Your task to perform on an android device: Open the phone app and click the voicemail tab. Image 0: 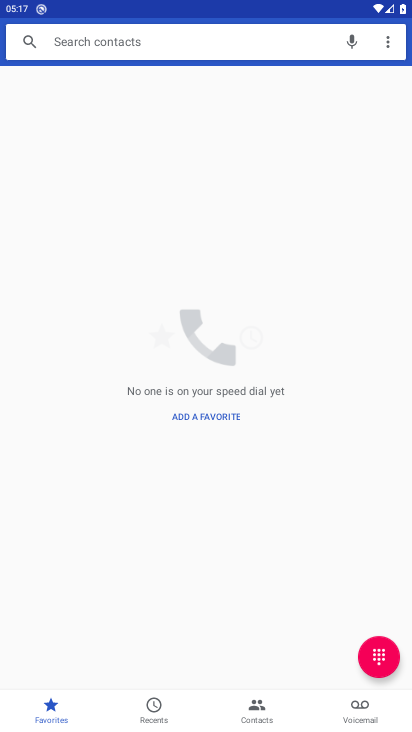
Step 0: press home button
Your task to perform on an android device: Open the phone app and click the voicemail tab. Image 1: 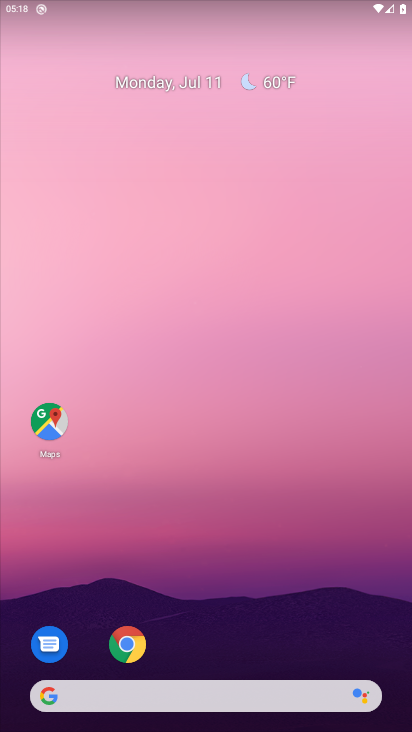
Step 1: drag from (160, 681) to (195, 423)
Your task to perform on an android device: Open the phone app and click the voicemail tab. Image 2: 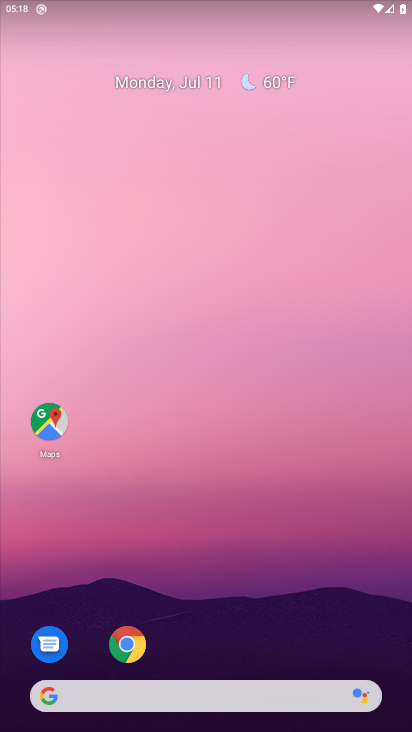
Step 2: drag from (200, 695) to (206, 248)
Your task to perform on an android device: Open the phone app and click the voicemail tab. Image 3: 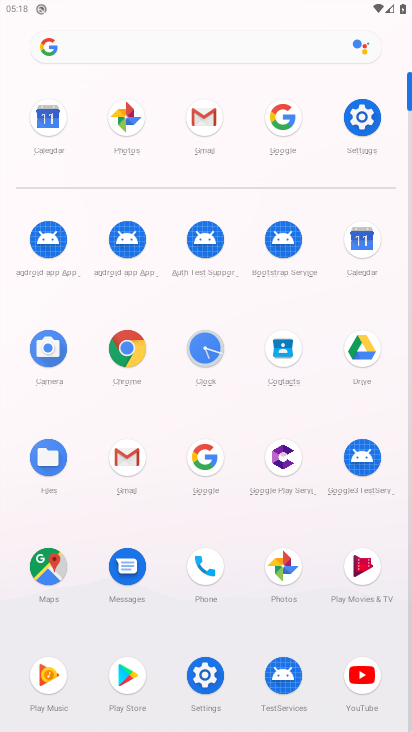
Step 3: click (202, 571)
Your task to perform on an android device: Open the phone app and click the voicemail tab. Image 4: 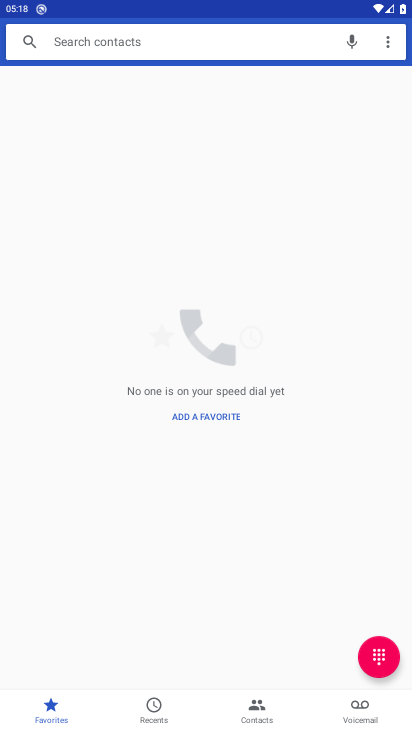
Step 4: click (371, 703)
Your task to perform on an android device: Open the phone app and click the voicemail tab. Image 5: 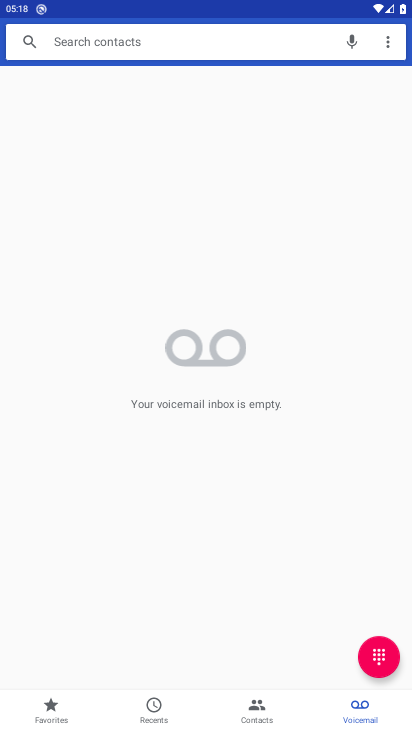
Step 5: task complete